Your task to perform on an android device: open app "Pinterest" Image 0: 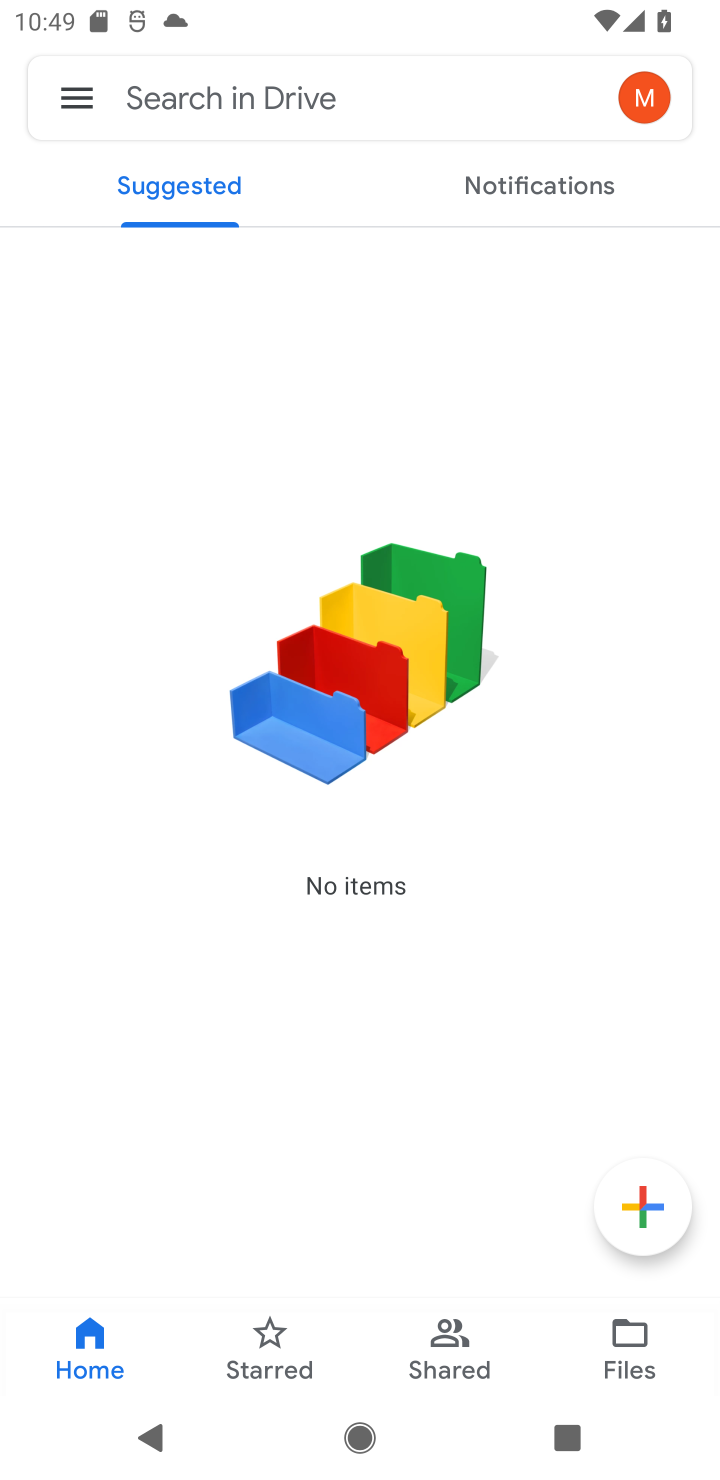
Step 0: press home button
Your task to perform on an android device: open app "Pinterest" Image 1: 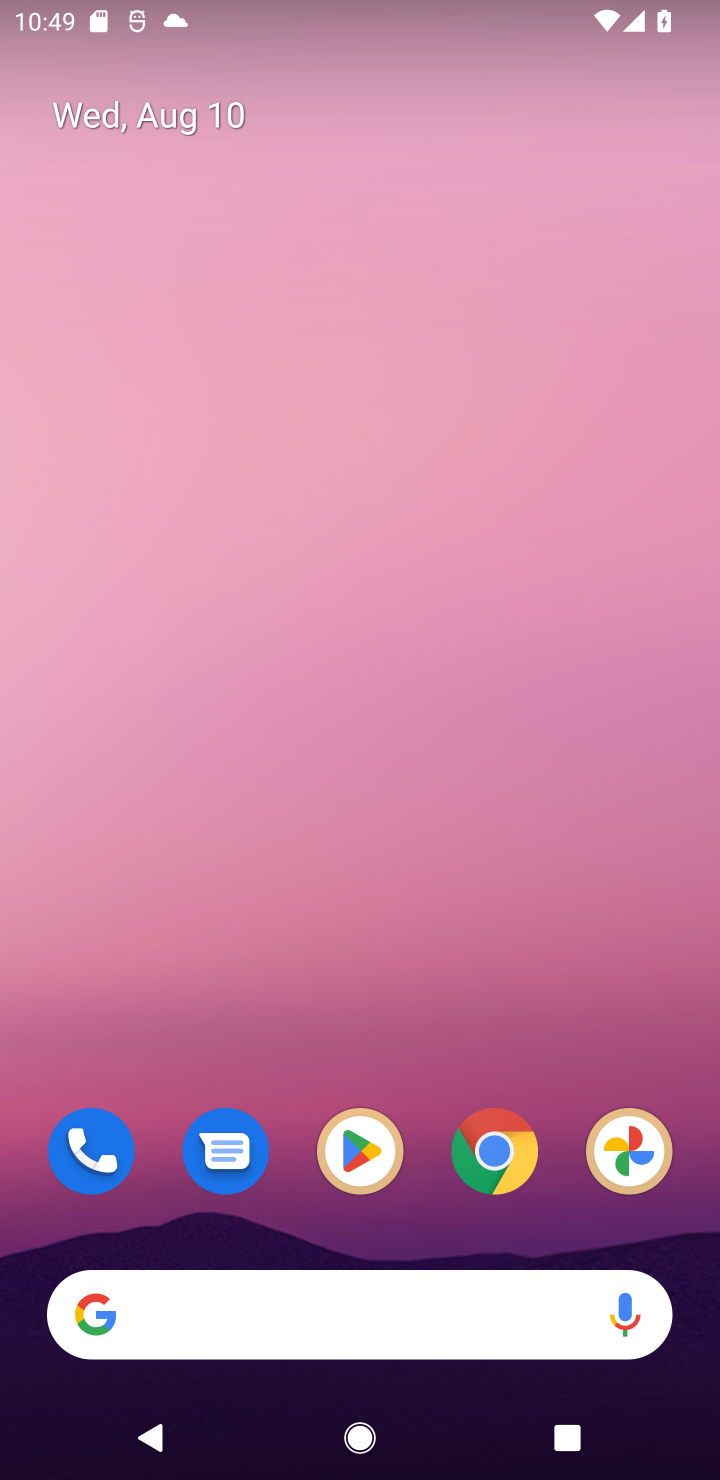
Step 1: click (352, 1142)
Your task to perform on an android device: open app "Pinterest" Image 2: 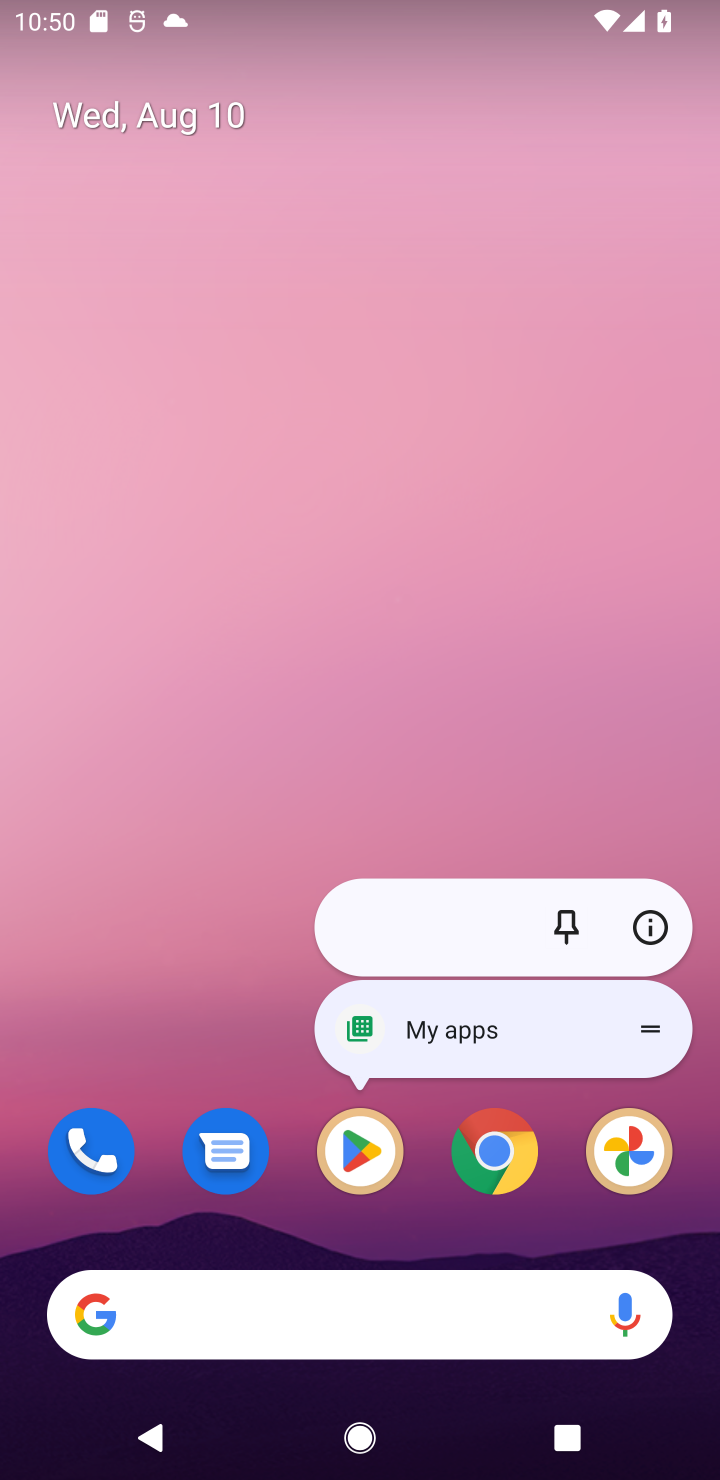
Step 2: click (227, 1024)
Your task to perform on an android device: open app "Pinterest" Image 3: 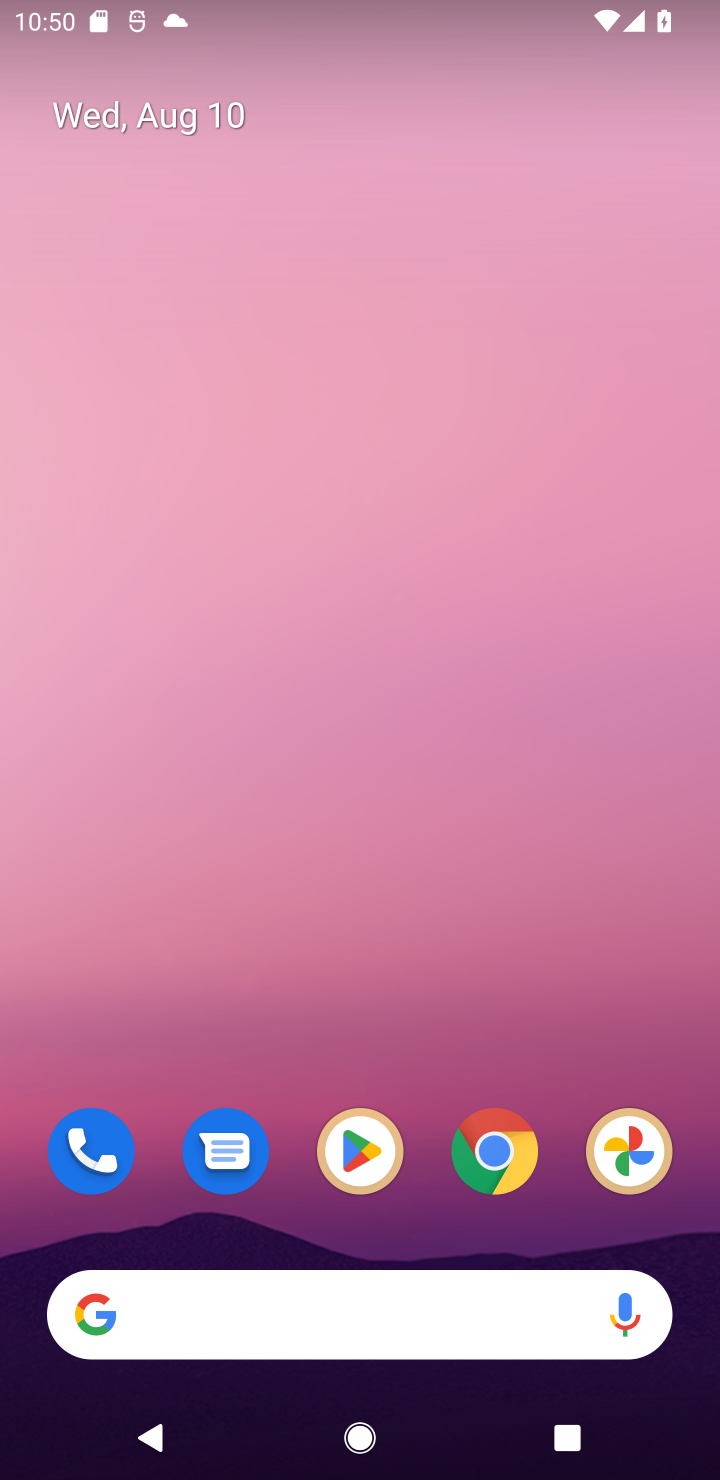
Step 3: drag from (234, 1054) to (425, 20)
Your task to perform on an android device: open app "Pinterest" Image 4: 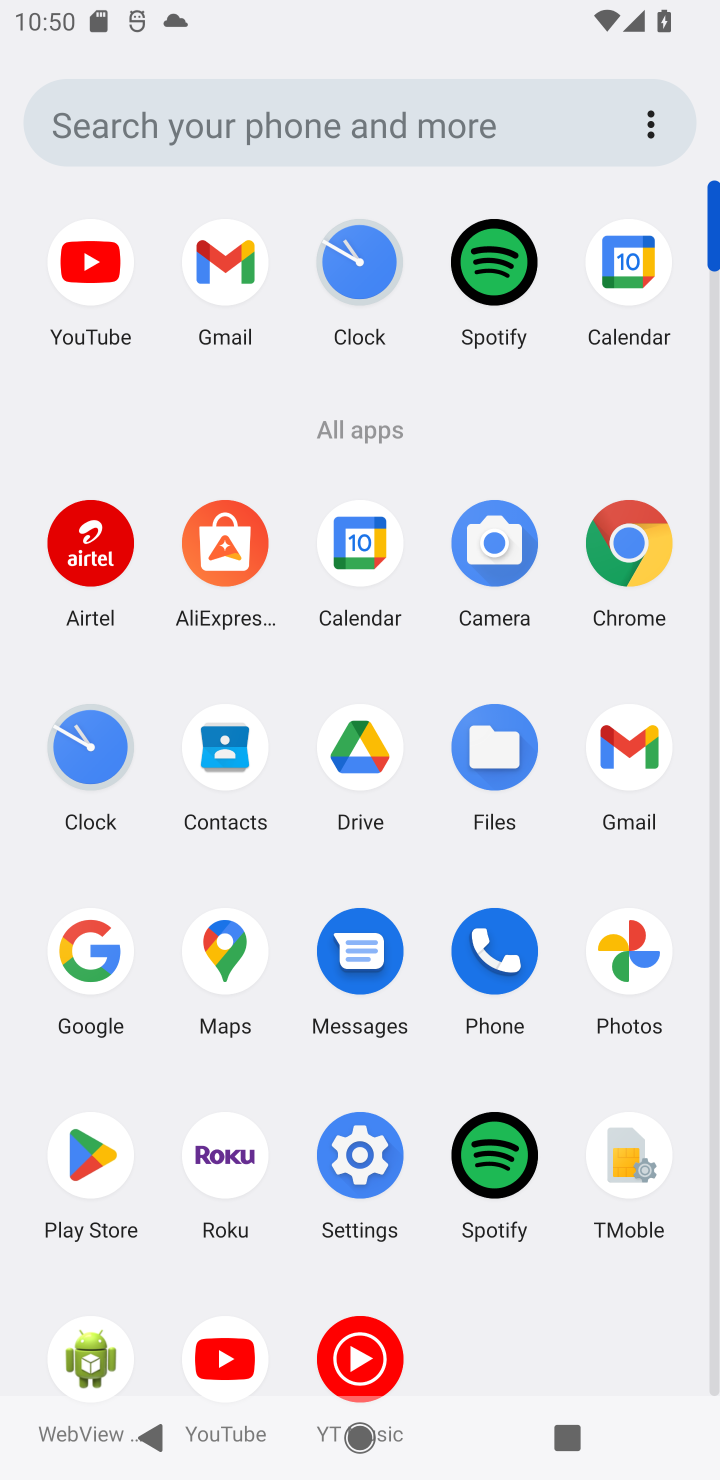
Step 4: click (86, 1144)
Your task to perform on an android device: open app "Pinterest" Image 5: 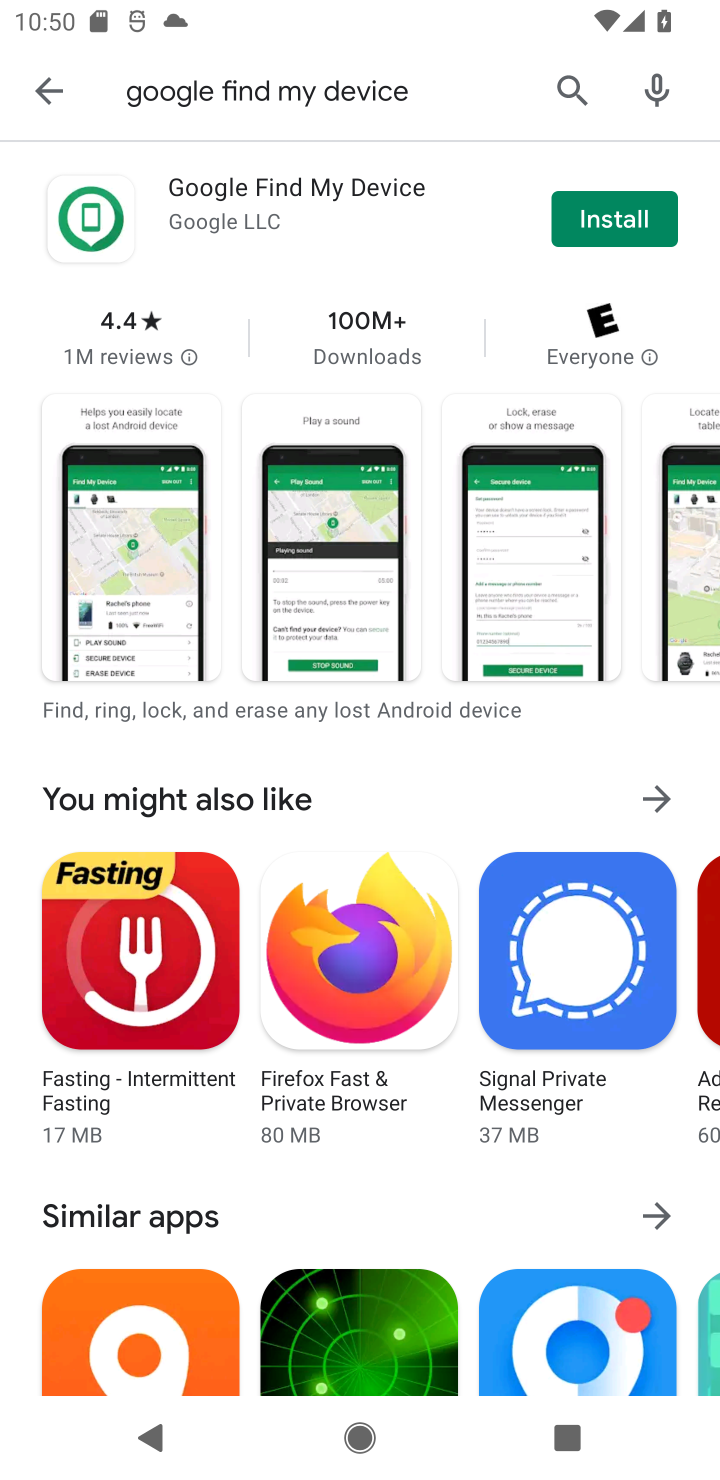
Step 5: click (561, 90)
Your task to perform on an android device: open app "Pinterest" Image 6: 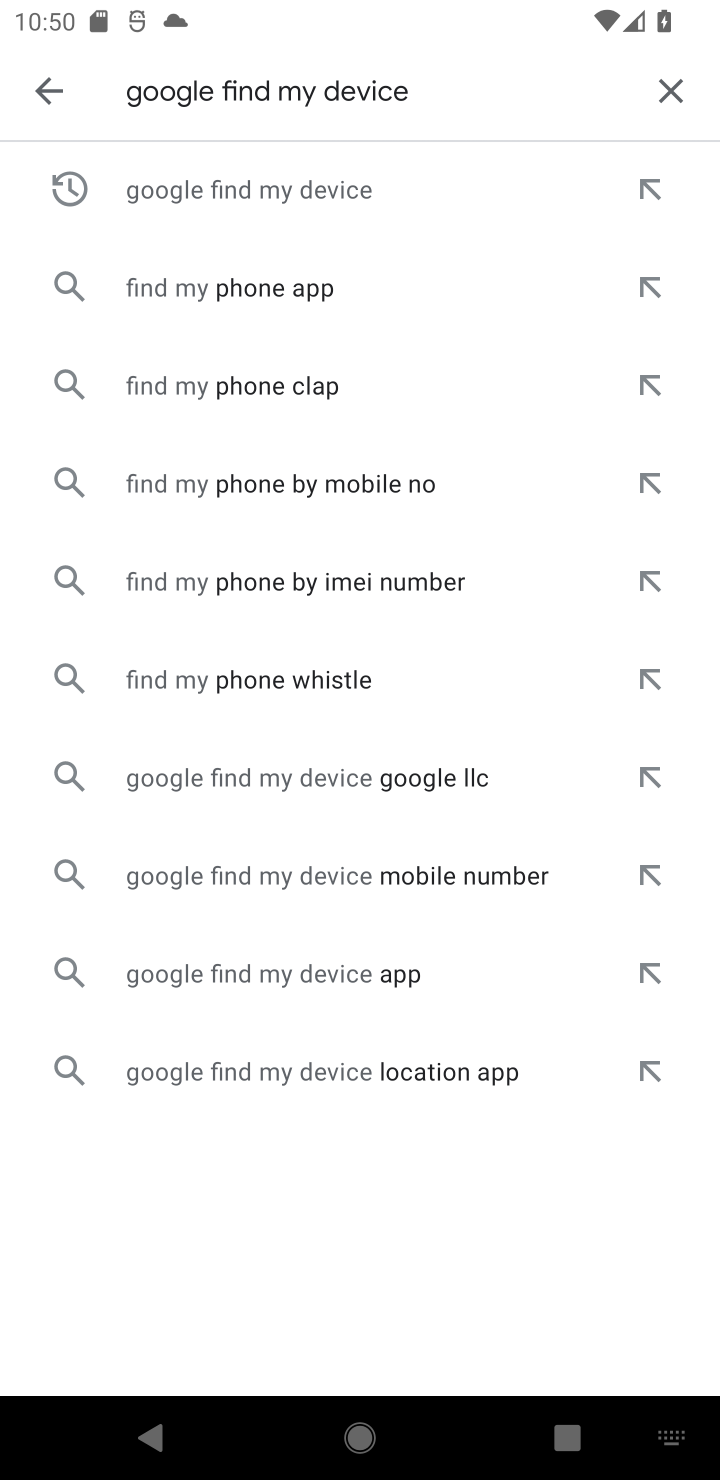
Step 6: click (670, 98)
Your task to perform on an android device: open app "Pinterest" Image 7: 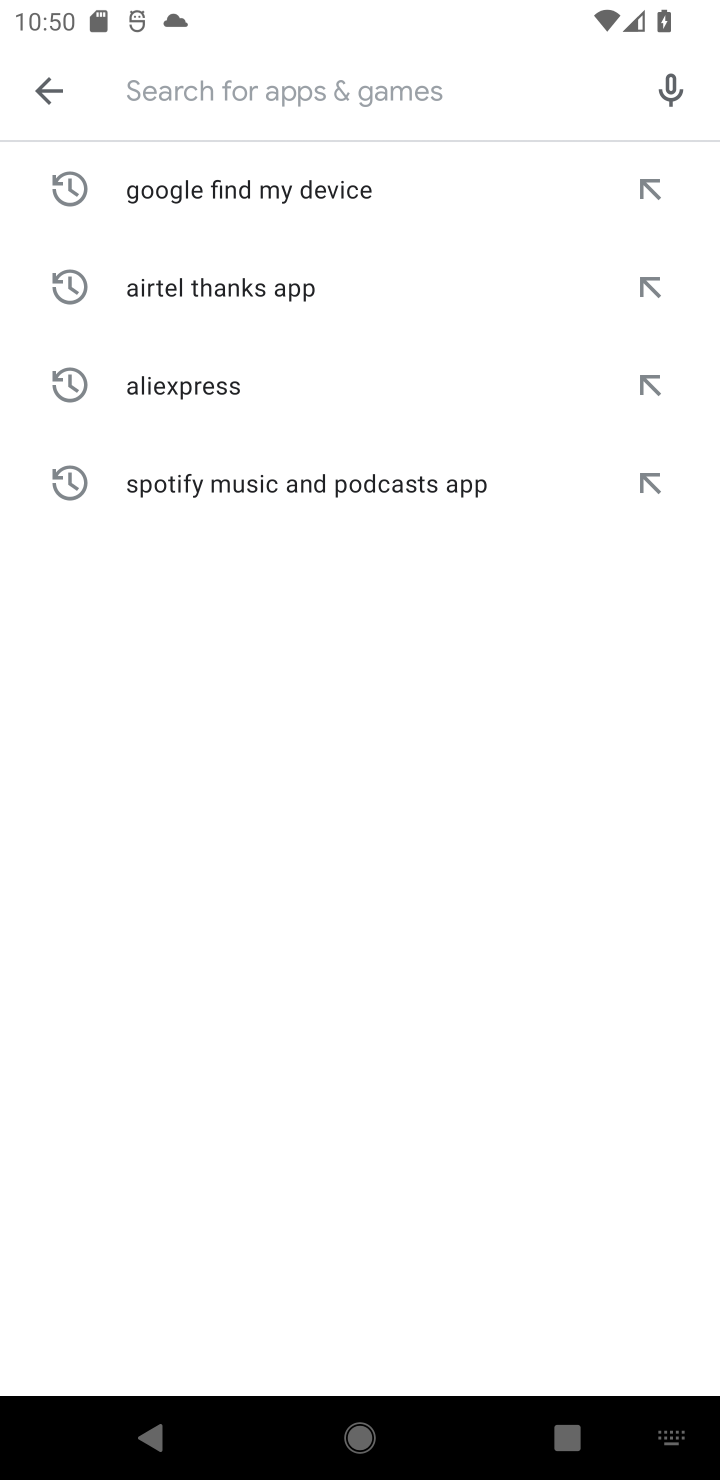
Step 7: type "Pinterest"
Your task to perform on an android device: open app "Pinterest" Image 8: 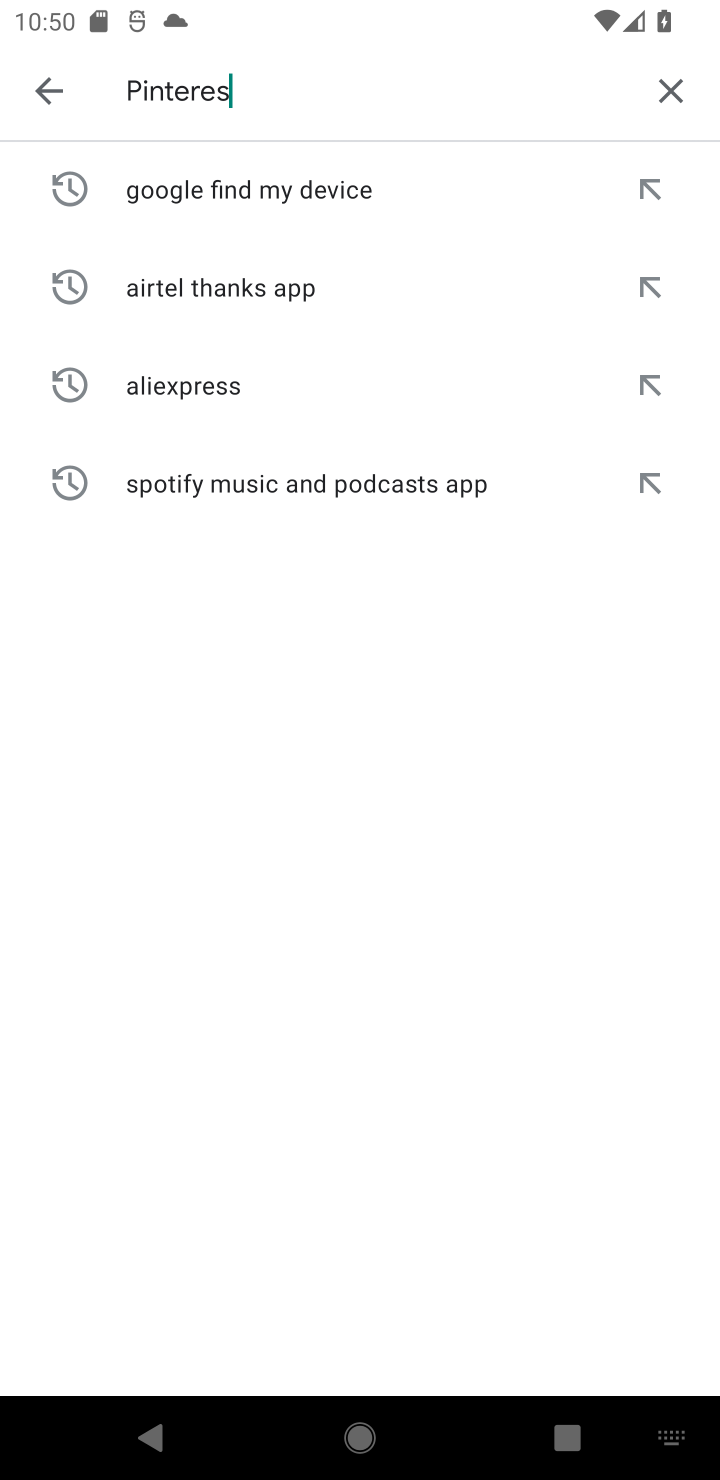
Step 8: type ""
Your task to perform on an android device: open app "Pinterest" Image 9: 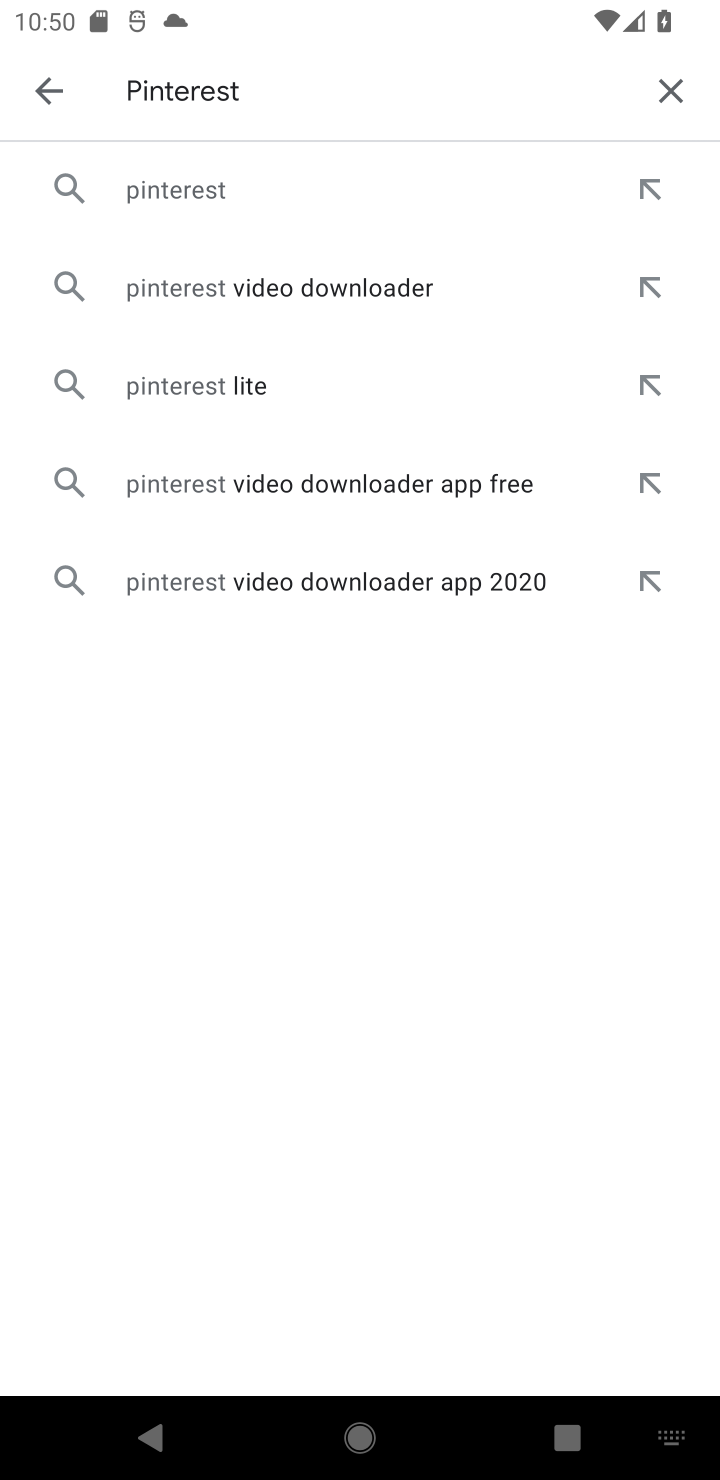
Step 9: click (189, 188)
Your task to perform on an android device: open app "Pinterest" Image 10: 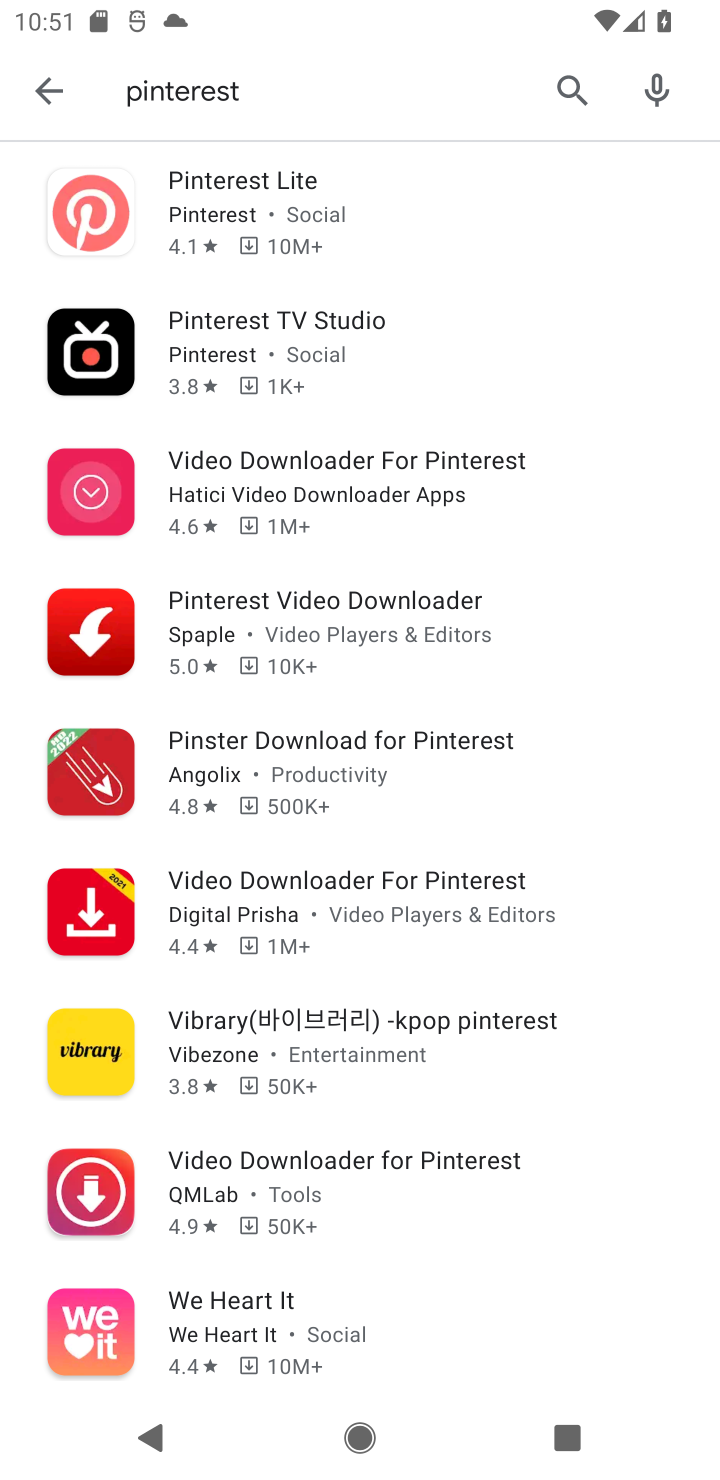
Step 10: task complete